Your task to perform on an android device: Open Google Maps and go to "Timeline" Image 0: 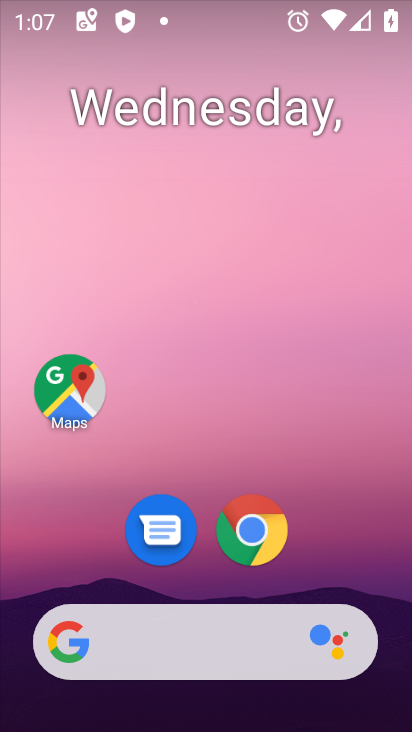
Step 0: drag from (204, 592) to (241, 202)
Your task to perform on an android device: Open Google Maps and go to "Timeline" Image 1: 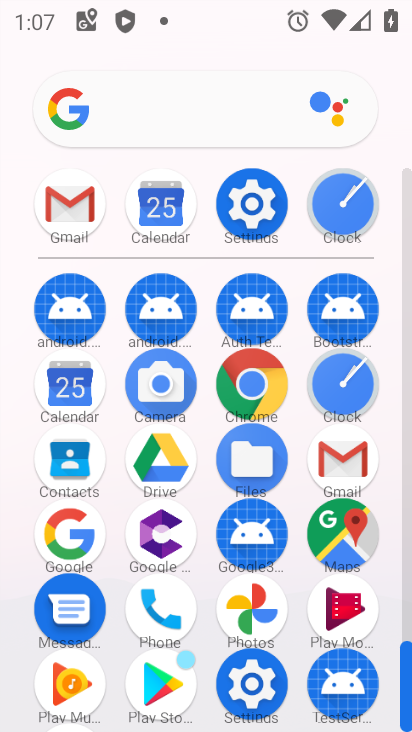
Step 1: click (337, 531)
Your task to perform on an android device: Open Google Maps and go to "Timeline" Image 2: 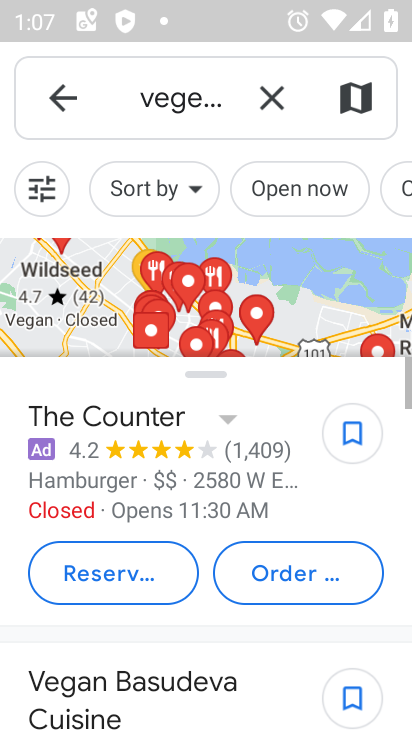
Step 2: click (45, 96)
Your task to perform on an android device: Open Google Maps and go to "Timeline" Image 3: 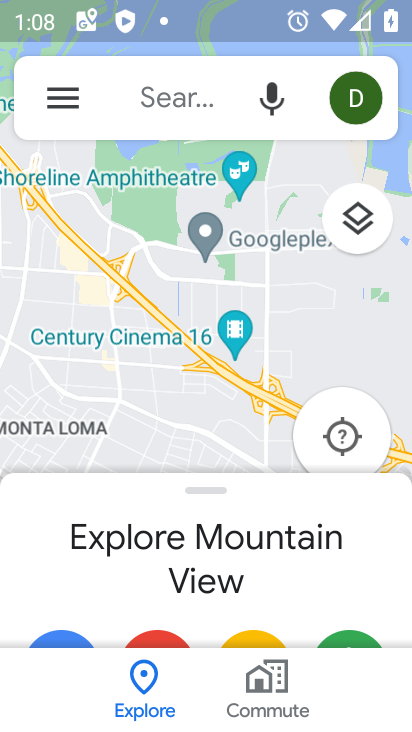
Step 3: click (50, 100)
Your task to perform on an android device: Open Google Maps and go to "Timeline" Image 4: 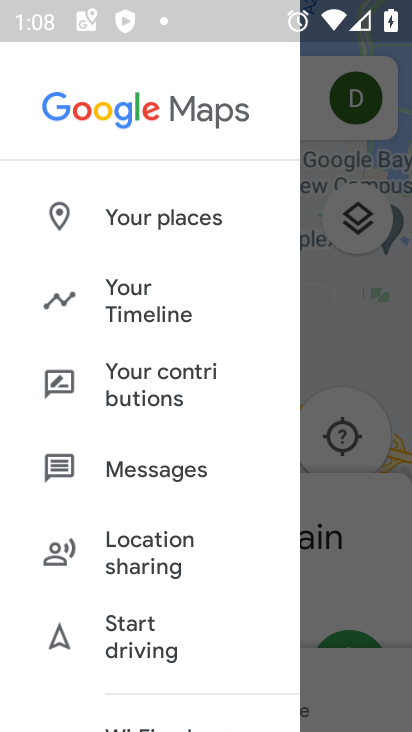
Step 4: drag from (156, 494) to (220, 179)
Your task to perform on an android device: Open Google Maps and go to "Timeline" Image 5: 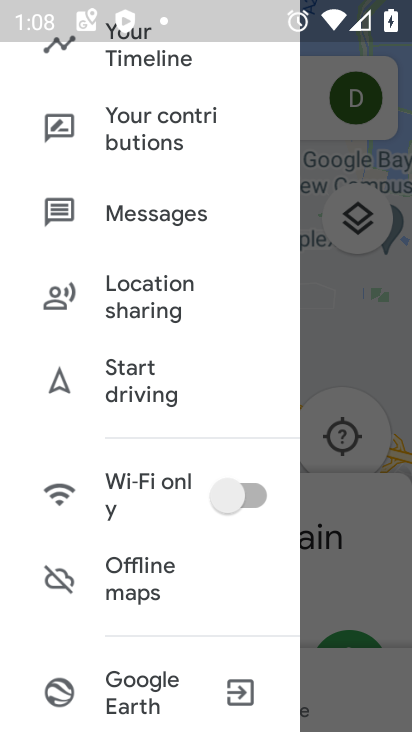
Step 5: drag from (156, 447) to (246, 574)
Your task to perform on an android device: Open Google Maps and go to "Timeline" Image 6: 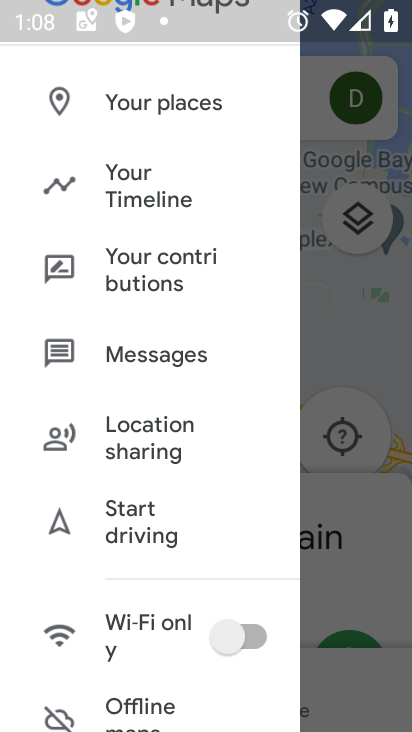
Step 6: click (172, 196)
Your task to perform on an android device: Open Google Maps and go to "Timeline" Image 7: 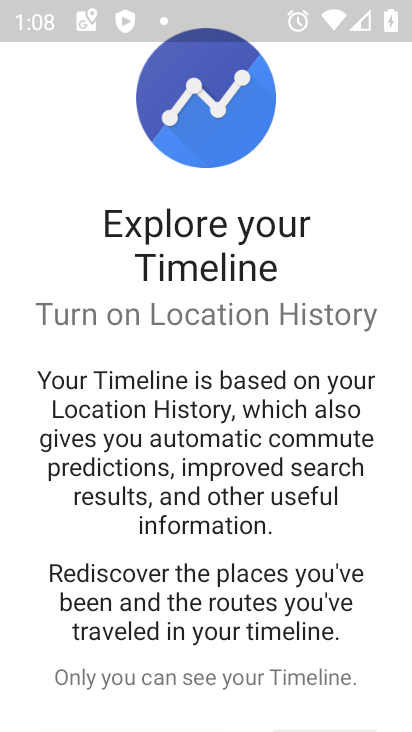
Step 7: task complete